Your task to perform on an android device: Open display settings Image 0: 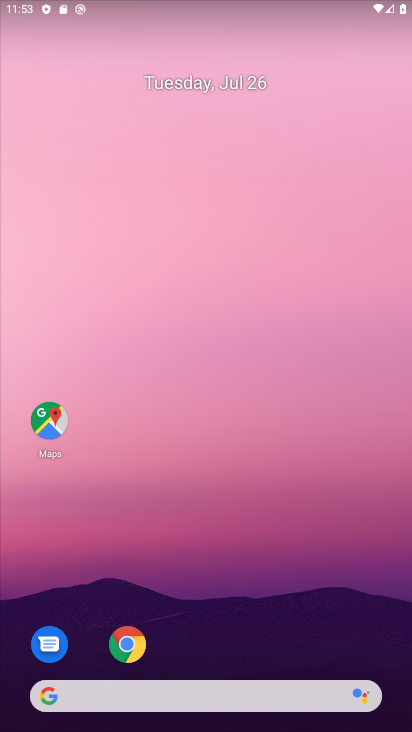
Step 0: click (207, 68)
Your task to perform on an android device: Open display settings Image 1: 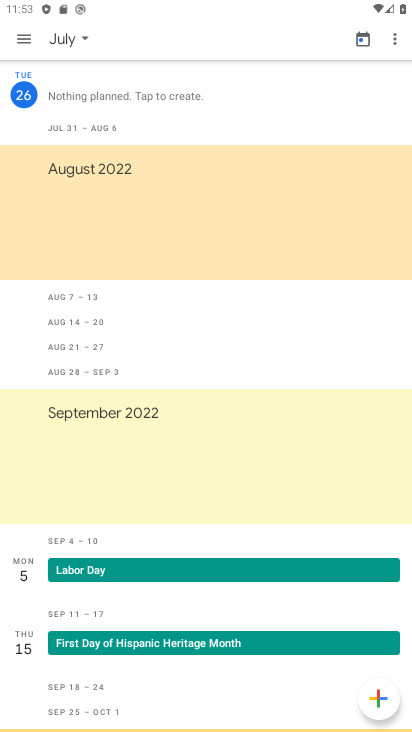
Step 1: press back button
Your task to perform on an android device: Open display settings Image 2: 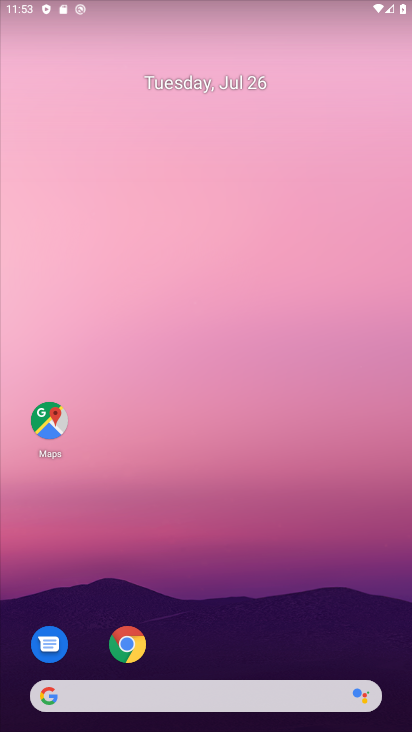
Step 2: drag from (230, 612) to (132, 135)
Your task to perform on an android device: Open display settings Image 3: 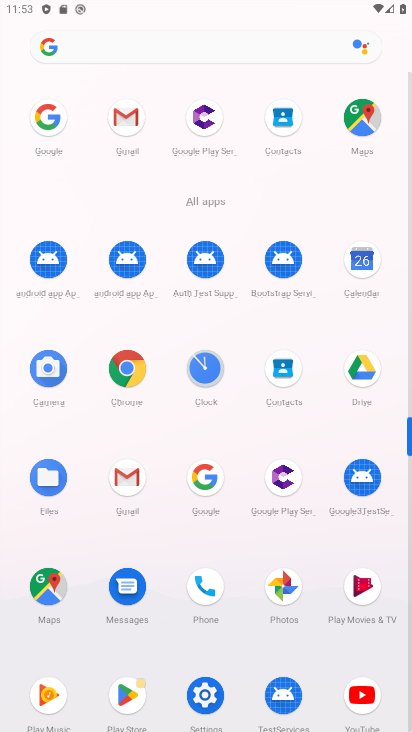
Step 3: drag from (165, 327) to (125, 10)
Your task to perform on an android device: Open display settings Image 4: 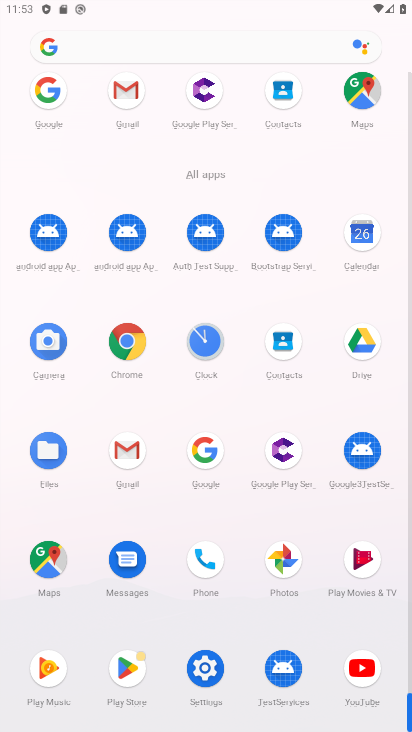
Step 4: click (211, 669)
Your task to perform on an android device: Open display settings Image 5: 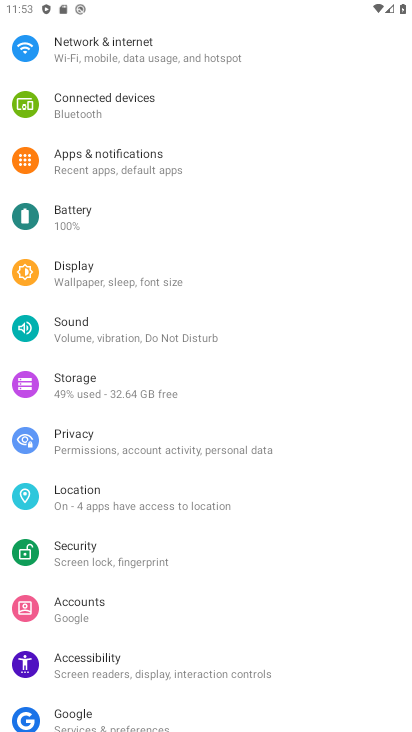
Step 5: click (91, 271)
Your task to perform on an android device: Open display settings Image 6: 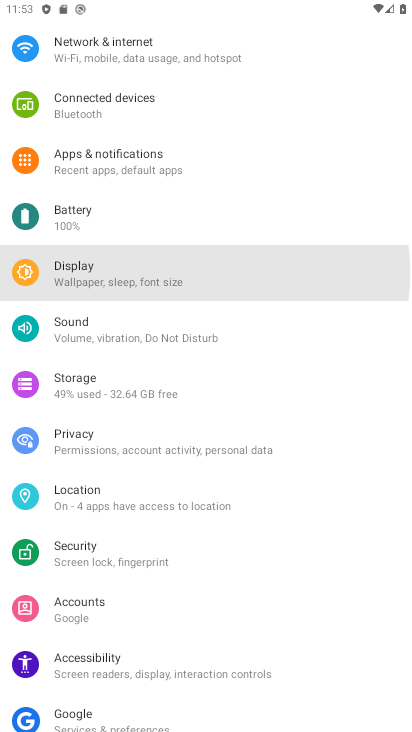
Step 6: click (91, 282)
Your task to perform on an android device: Open display settings Image 7: 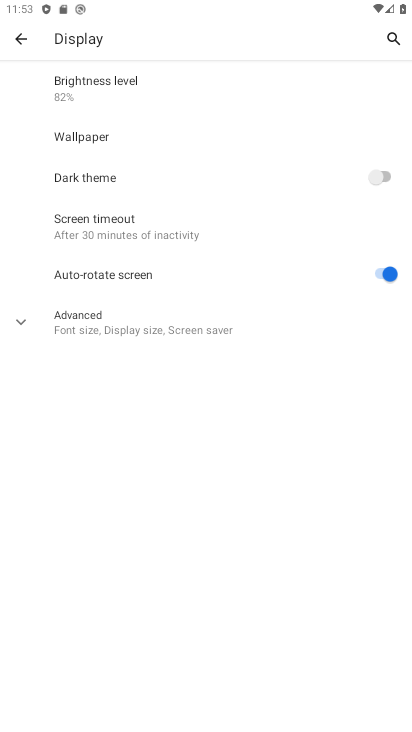
Step 7: task complete